Your task to perform on an android device: Go to network settings Image 0: 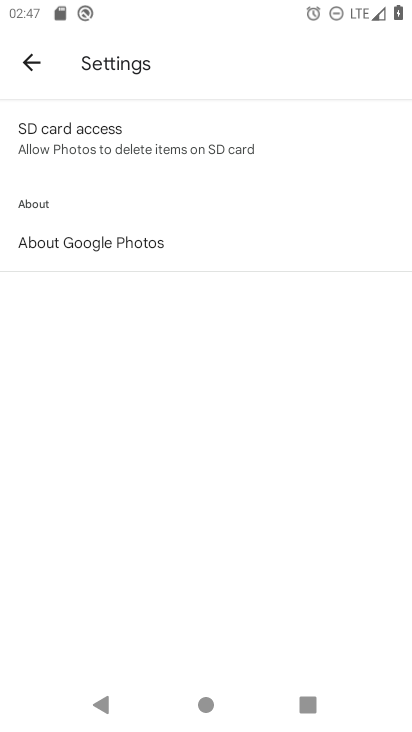
Step 0: press home button
Your task to perform on an android device: Go to network settings Image 1: 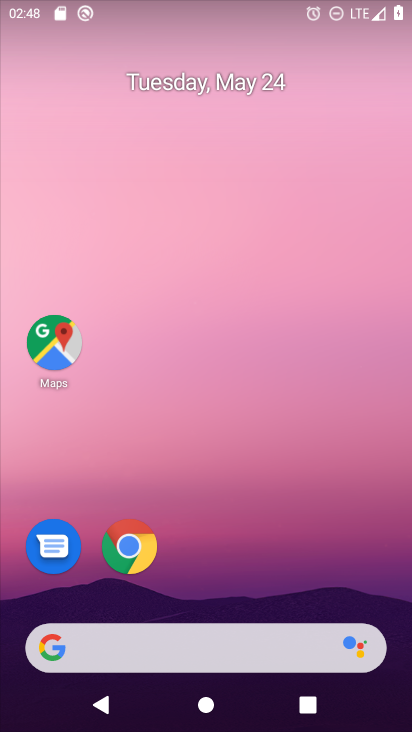
Step 1: drag from (241, 633) to (302, 19)
Your task to perform on an android device: Go to network settings Image 2: 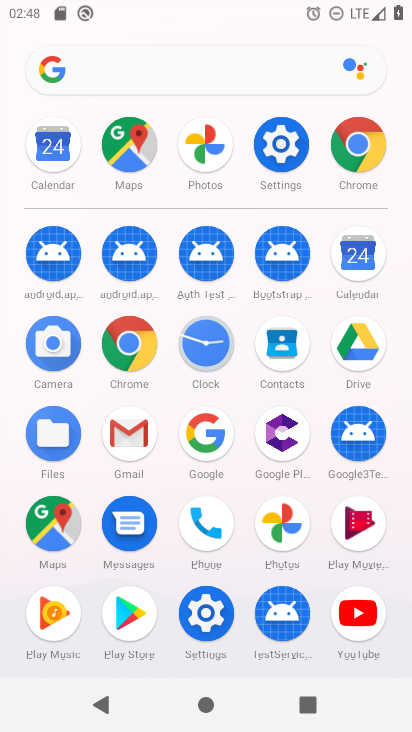
Step 2: click (263, 139)
Your task to perform on an android device: Go to network settings Image 3: 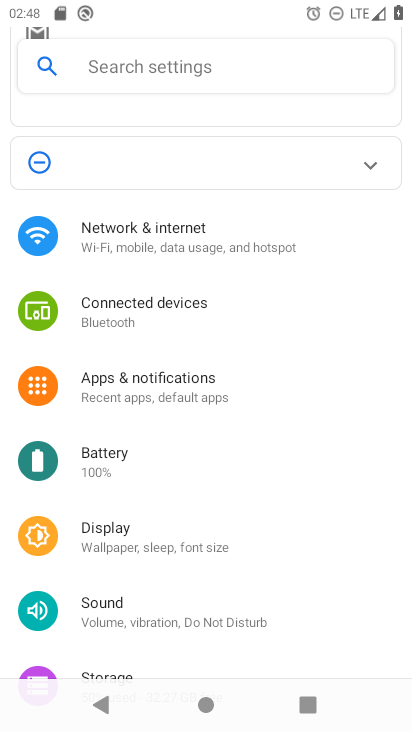
Step 3: click (184, 227)
Your task to perform on an android device: Go to network settings Image 4: 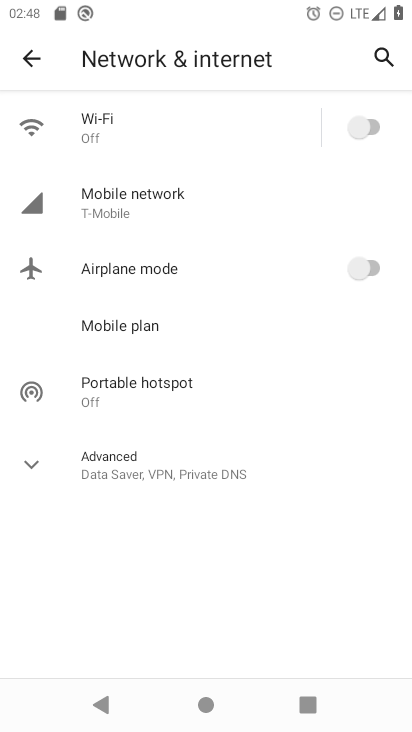
Step 4: click (153, 194)
Your task to perform on an android device: Go to network settings Image 5: 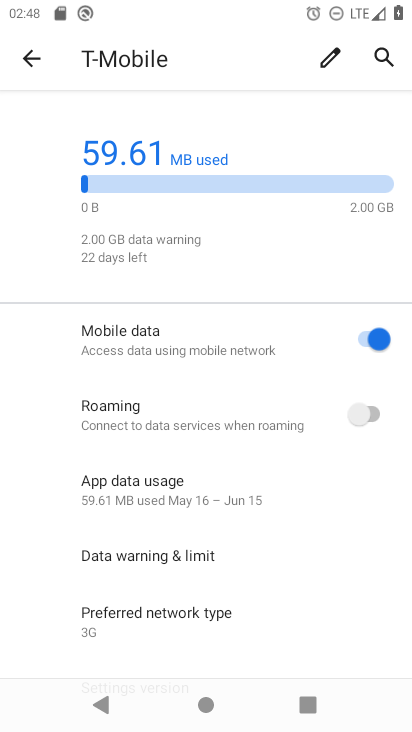
Step 5: task complete